Your task to perform on an android device: What is the news today? Image 0: 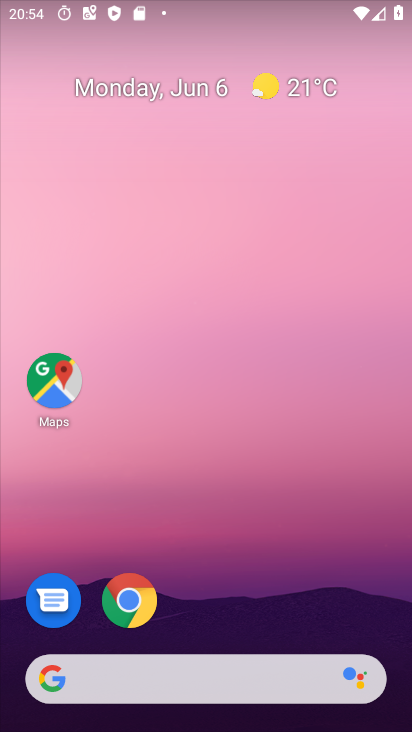
Step 0: drag from (218, 519) to (203, 0)
Your task to perform on an android device: What is the news today? Image 1: 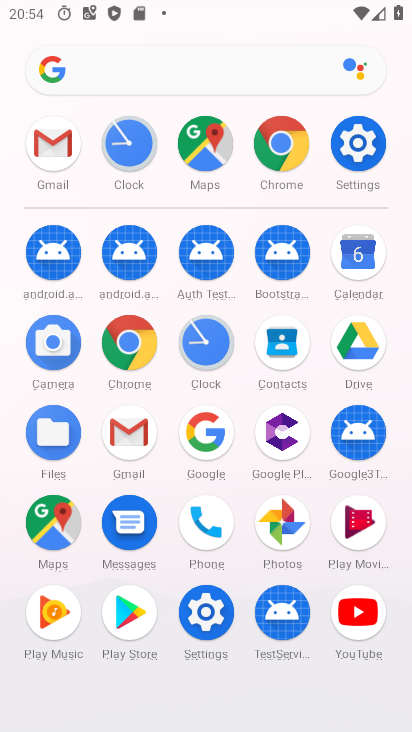
Step 1: click (131, 347)
Your task to perform on an android device: What is the news today? Image 2: 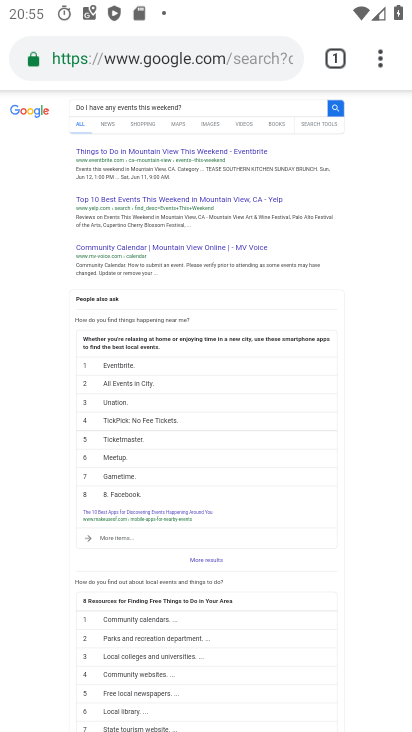
Step 2: click (179, 69)
Your task to perform on an android device: What is the news today? Image 3: 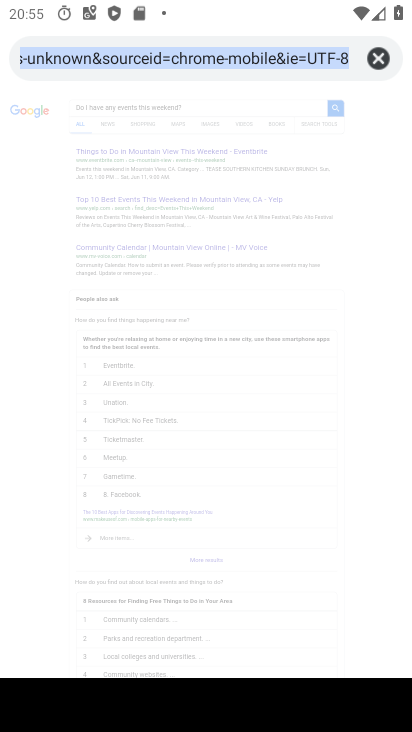
Step 3: click (381, 55)
Your task to perform on an android device: What is the news today? Image 4: 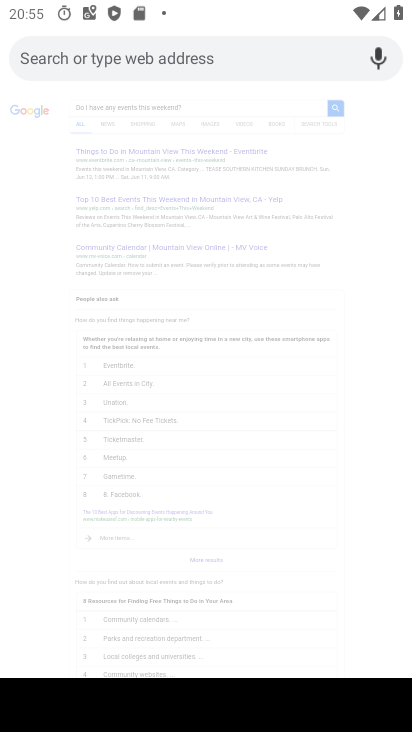
Step 4: type "What is the news today?"
Your task to perform on an android device: What is the news today? Image 5: 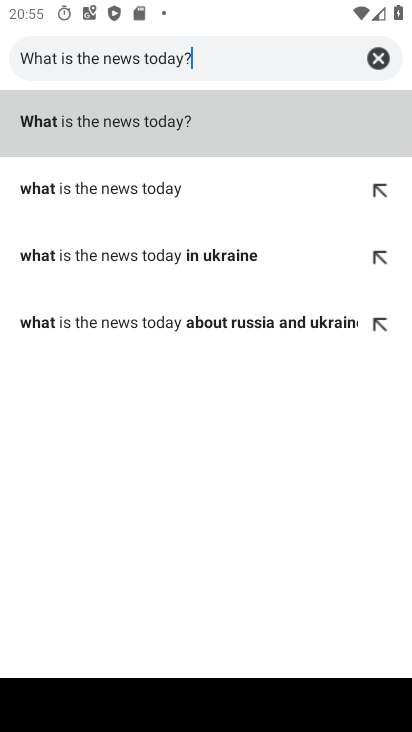
Step 5: type ""
Your task to perform on an android device: What is the news today? Image 6: 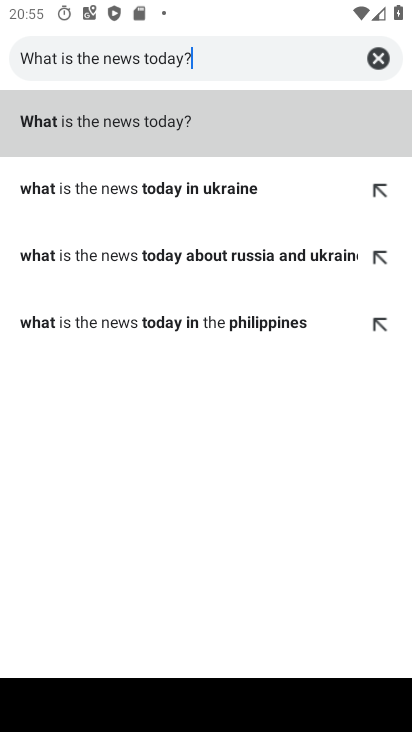
Step 6: click (199, 116)
Your task to perform on an android device: What is the news today? Image 7: 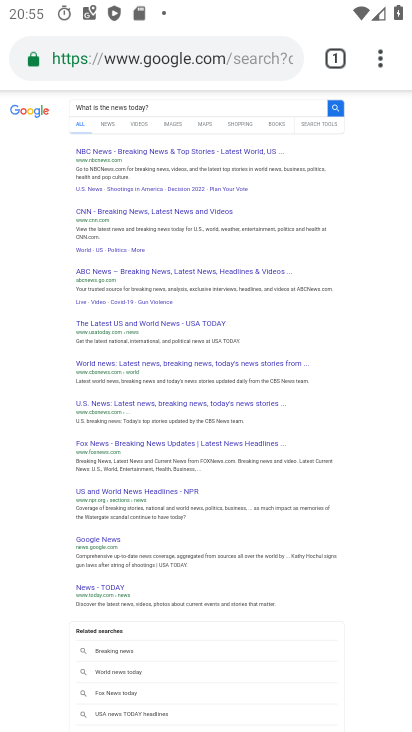
Step 7: task complete